Your task to perform on an android device: Open ESPN.com Image 0: 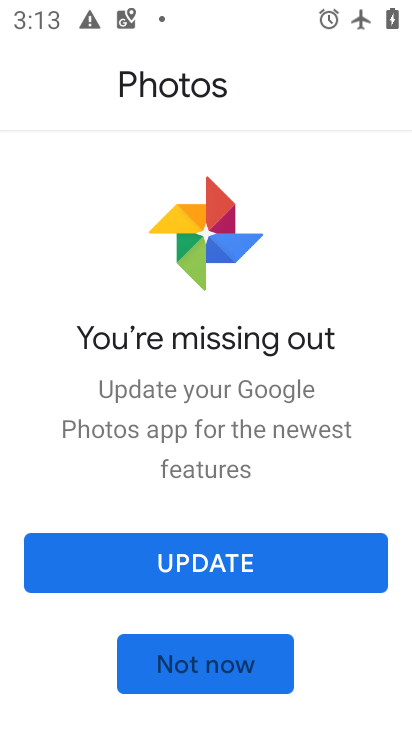
Step 0: press home button
Your task to perform on an android device: Open ESPN.com Image 1: 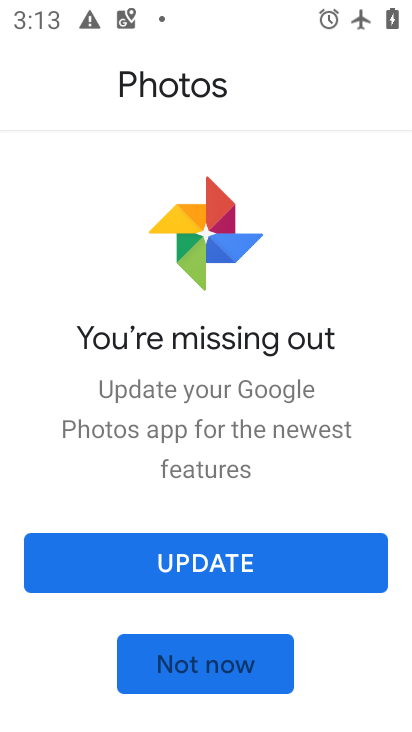
Step 1: press home button
Your task to perform on an android device: Open ESPN.com Image 2: 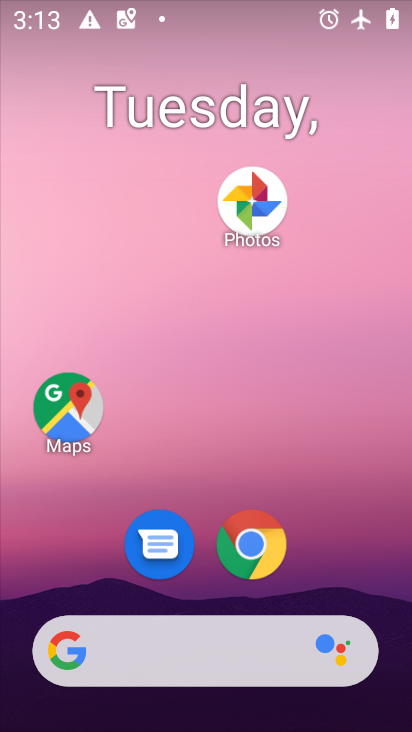
Step 2: drag from (328, 530) to (328, 72)
Your task to perform on an android device: Open ESPN.com Image 3: 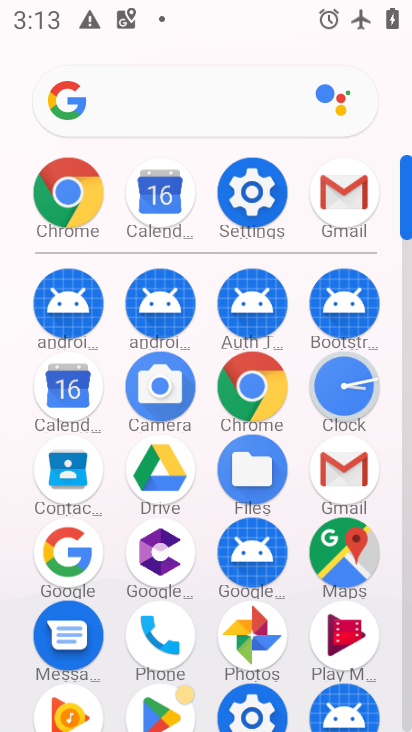
Step 3: click (250, 391)
Your task to perform on an android device: Open ESPN.com Image 4: 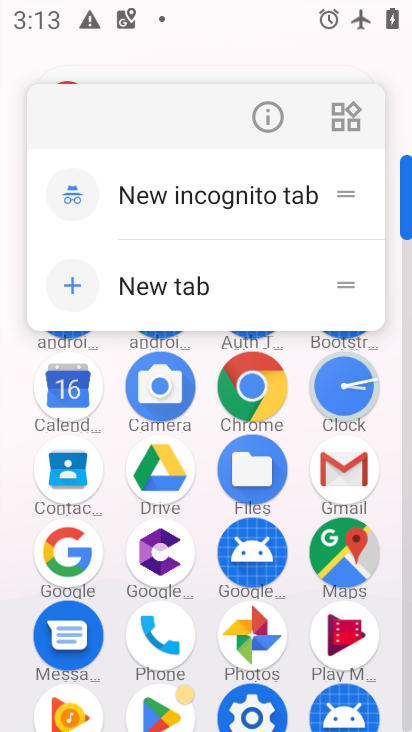
Step 4: click (250, 391)
Your task to perform on an android device: Open ESPN.com Image 5: 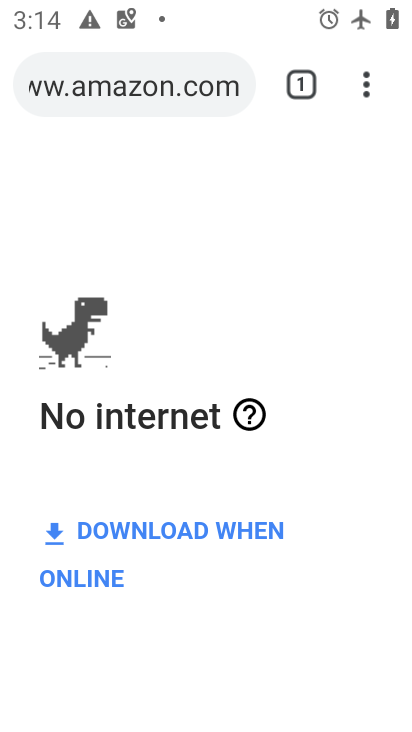
Step 5: click (175, 74)
Your task to perform on an android device: Open ESPN.com Image 6: 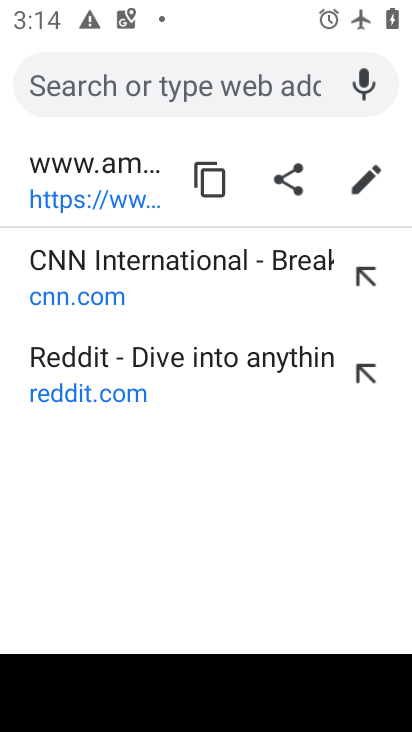
Step 6: type "espn.com"
Your task to perform on an android device: Open ESPN.com Image 7: 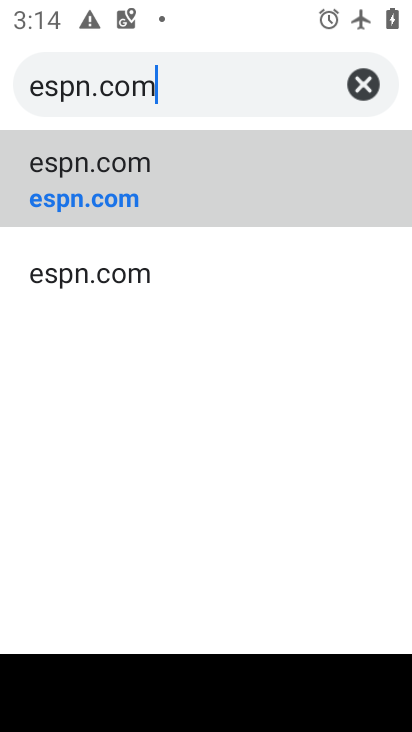
Step 7: click (122, 213)
Your task to perform on an android device: Open ESPN.com Image 8: 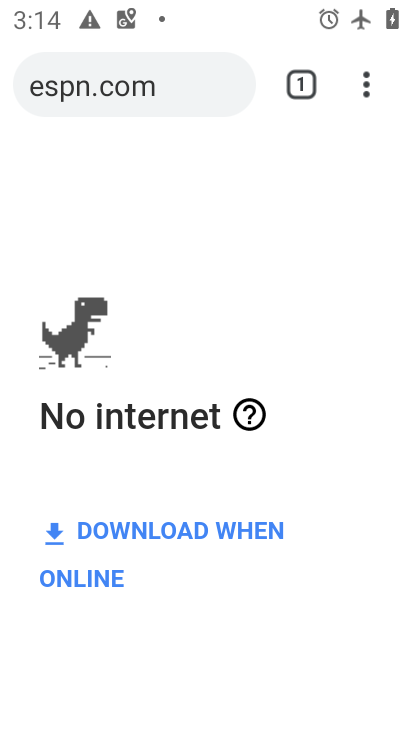
Step 8: task complete